Your task to perform on an android device: turn on airplane mode Image 0: 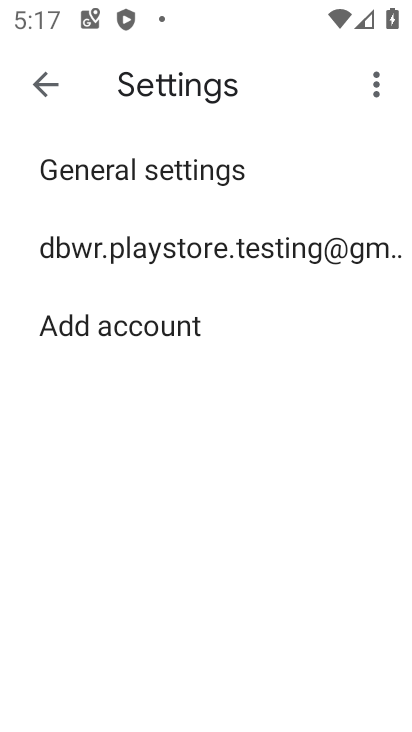
Step 0: press home button
Your task to perform on an android device: turn on airplane mode Image 1: 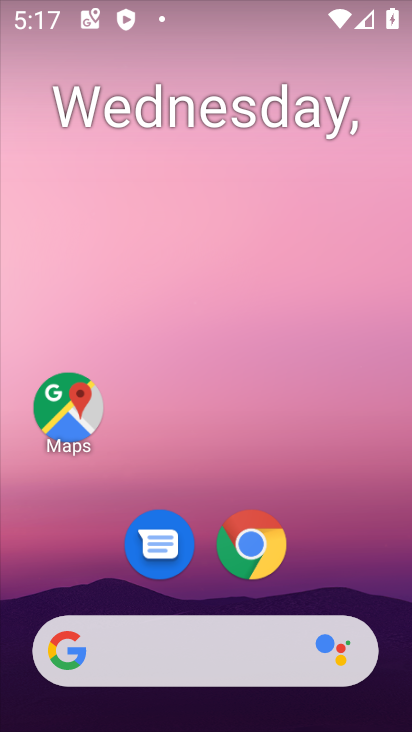
Step 1: drag from (383, 674) to (355, 153)
Your task to perform on an android device: turn on airplane mode Image 2: 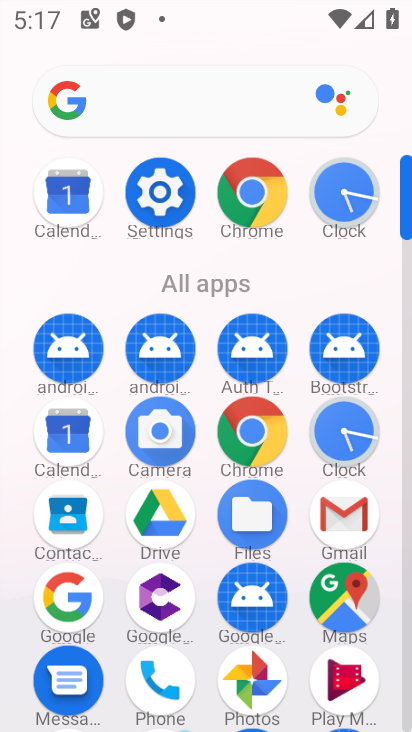
Step 2: click (174, 189)
Your task to perform on an android device: turn on airplane mode Image 3: 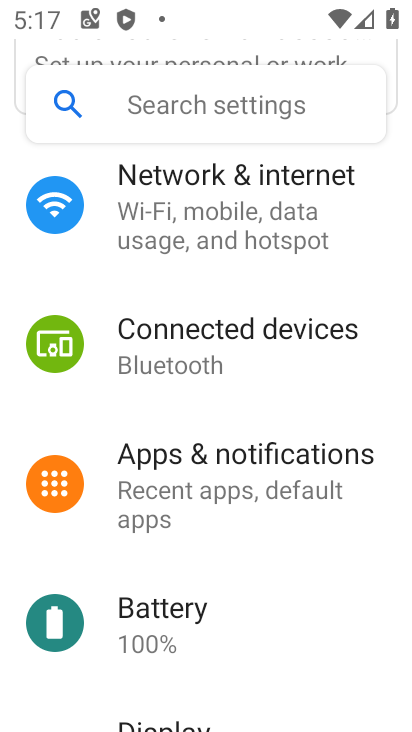
Step 3: click (239, 207)
Your task to perform on an android device: turn on airplane mode Image 4: 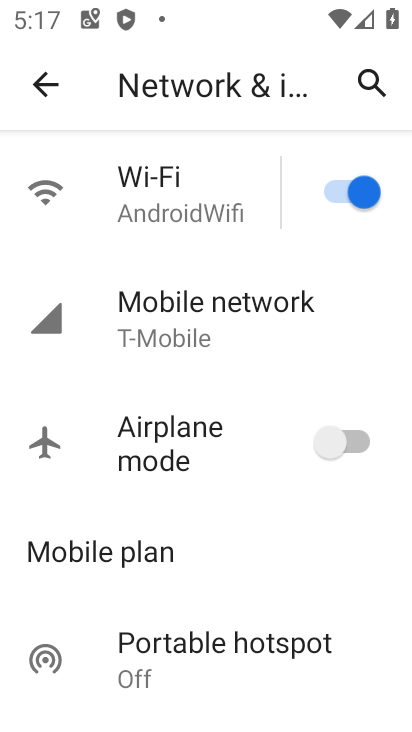
Step 4: click (354, 440)
Your task to perform on an android device: turn on airplane mode Image 5: 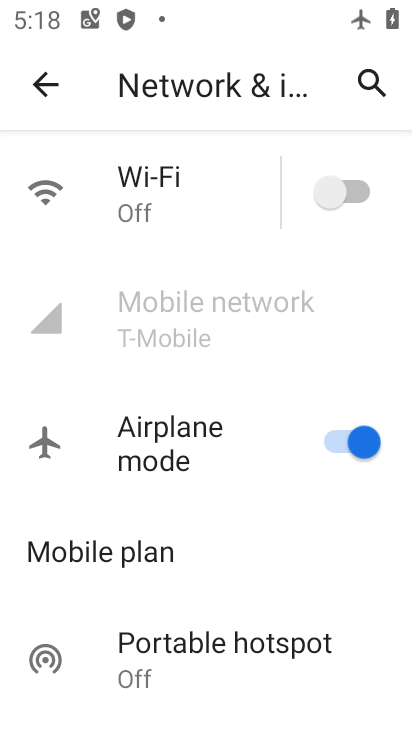
Step 5: task complete